Your task to perform on an android device: Go to ESPN.com Image 0: 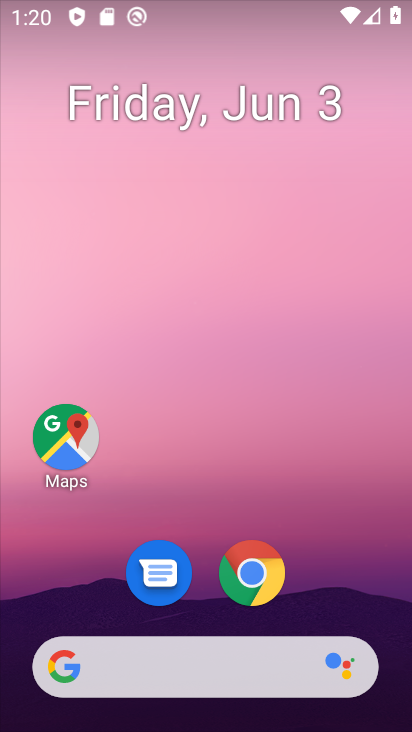
Step 0: task complete